Your task to perform on an android device: turn on notifications settings in the gmail app Image 0: 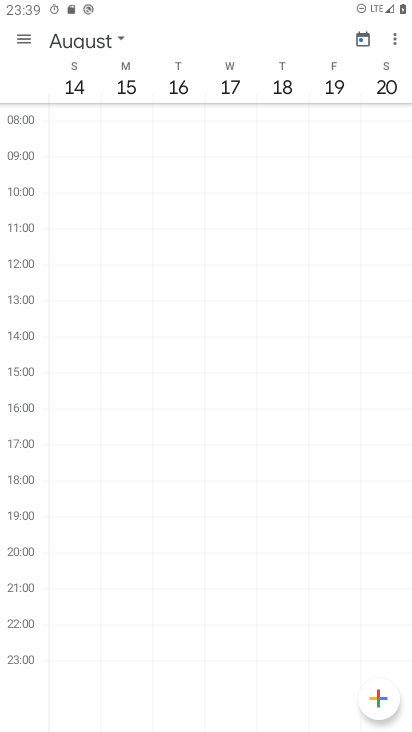
Step 0: press home button
Your task to perform on an android device: turn on notifications settings in the gmail app Image 1: 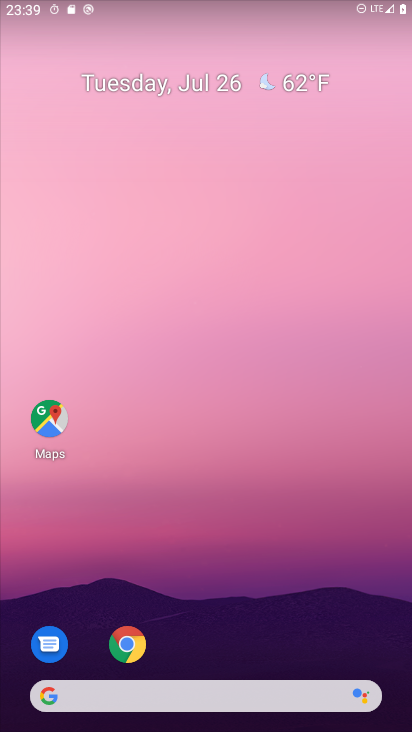
Step 1: drag from (237, 647) to (264, 63)
Your task to perform on an android device: turn on notifications settings in the gmail app Image 2: 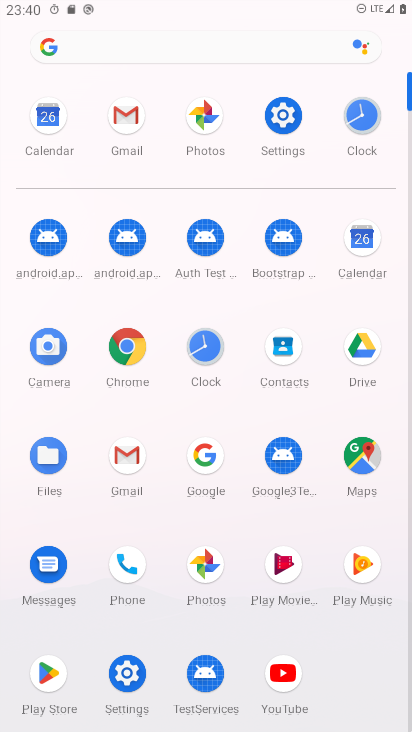
Step 2: click (132, 457)
Your task to perform on an android device: turn on notifications settings in the gmail app Image 3: 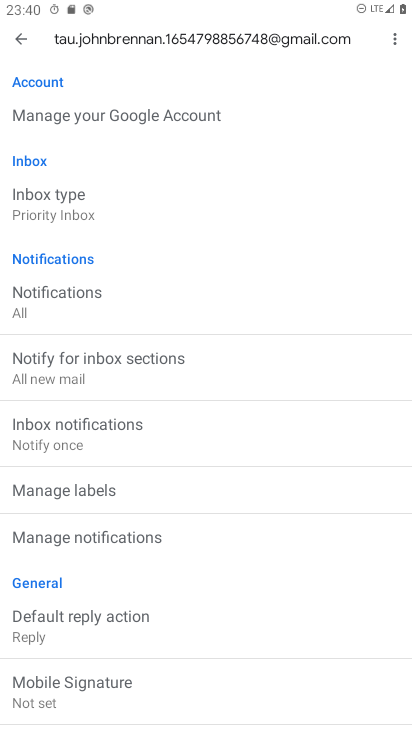
Step 3: click (28, 40)
Your task to perform on an android device: turn on notifications settings in the gmail app Image 4: 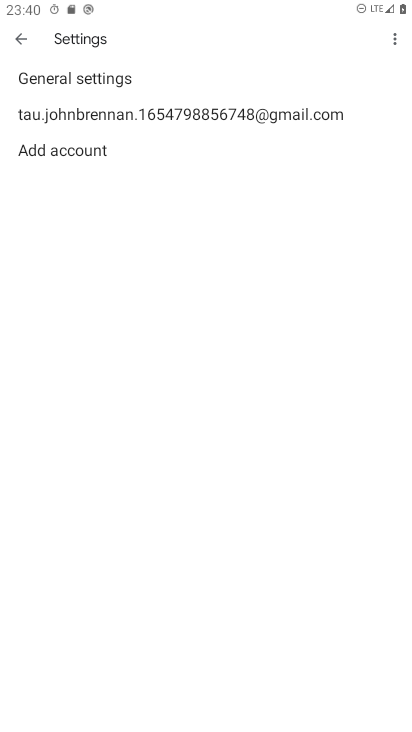
Step 4: click (42, 79)
Your task to perform on an android device: turn on notifications settings in the gmail app Image 5: 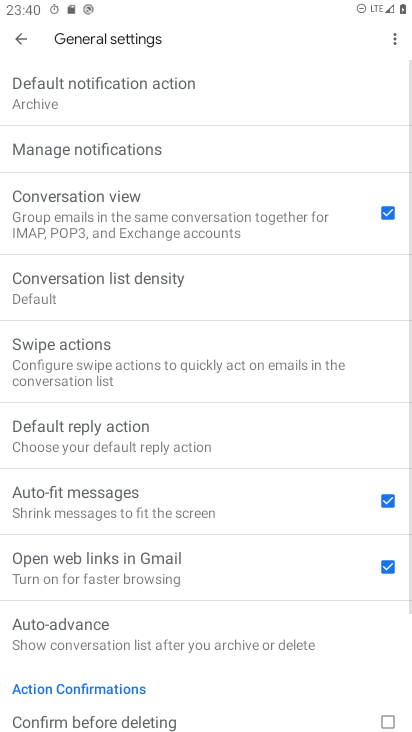
Step 5: click (72, 150)
Your task to perform on an android device: turn on notifications settings in the gmail app Image 6: 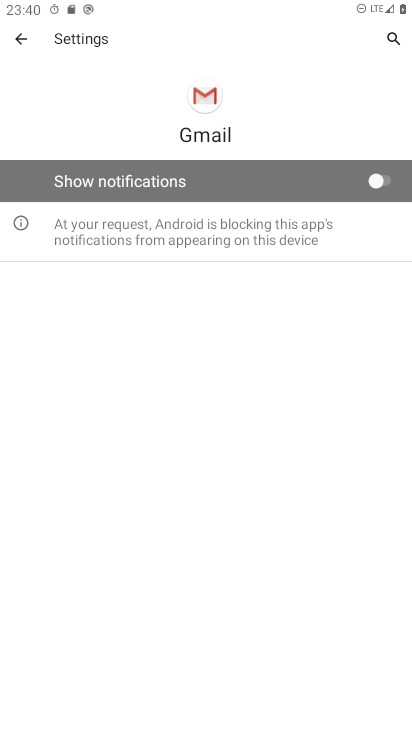
Step 6: click (382, 190)
Your task to perform on an android device: turn on notifications settings in the gmail app Image 7: 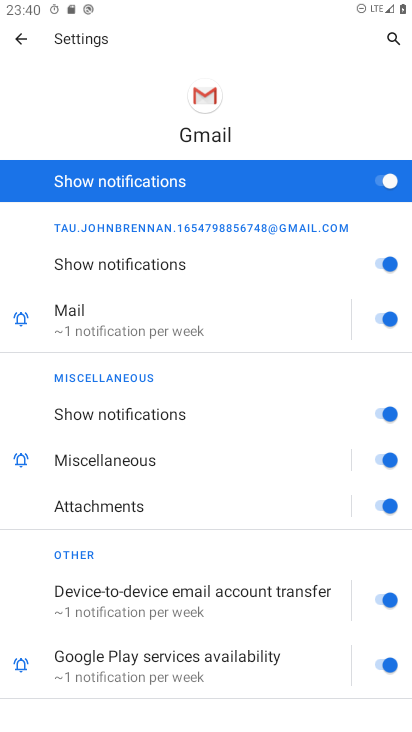
Step 7: task complete